Your task to perform on an android device: Search for vegetarian restaurants on Maps Image 0: 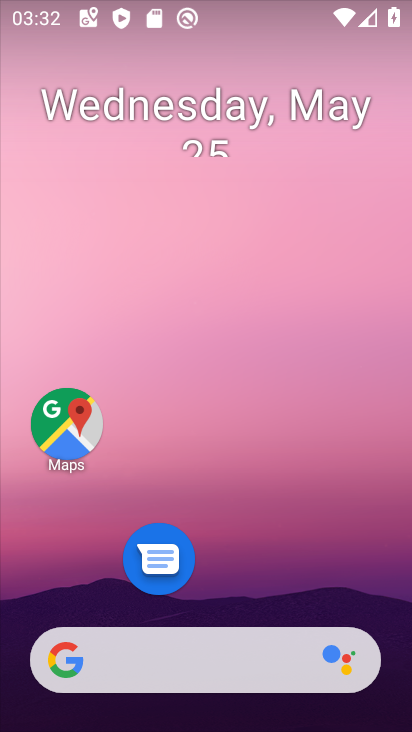
Step 0: drag from (228, 602) to (266, 112)
Your task to perform on an android device: Search for vegetarian restaurants on Maps Image 1: 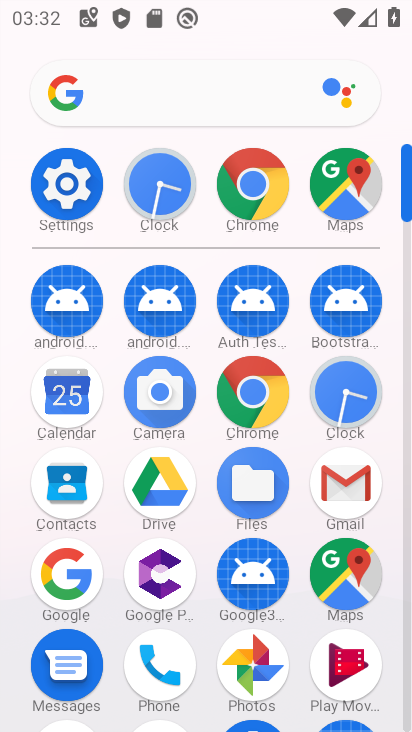
Step 1: click (346, 568)
Your task to perform on an android device: Search for vegetarian restaurants on Maps Image 2: 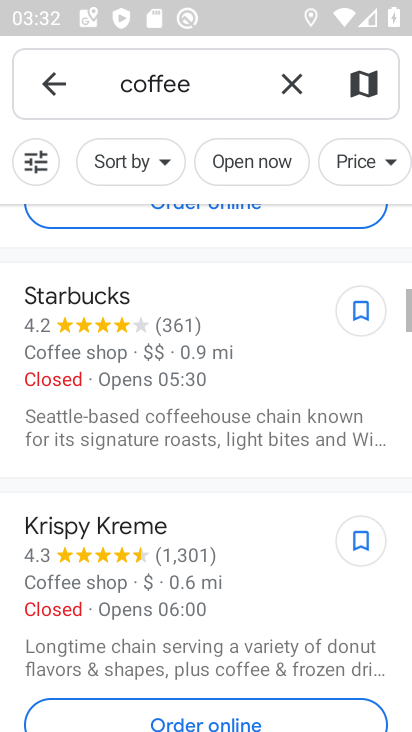
Step 2: click (289, 84)
Your task to perform on an android device: Search for vegetarian restaurants on Maps Image 3: 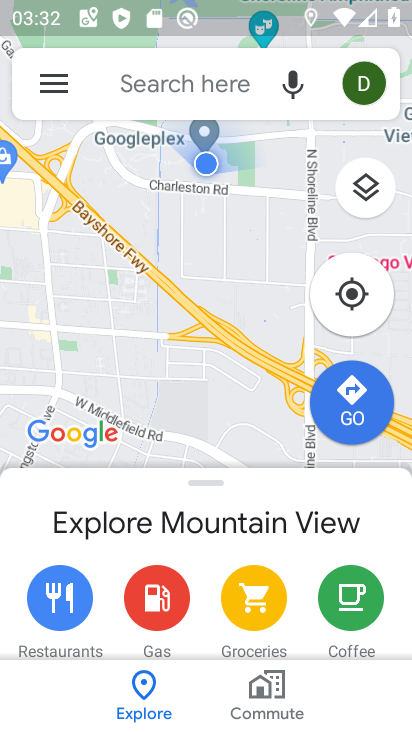
Step 3: click (133, 77)
Your task to perform on an android device: Search for vegetarian restaurants on Maps Image 4: 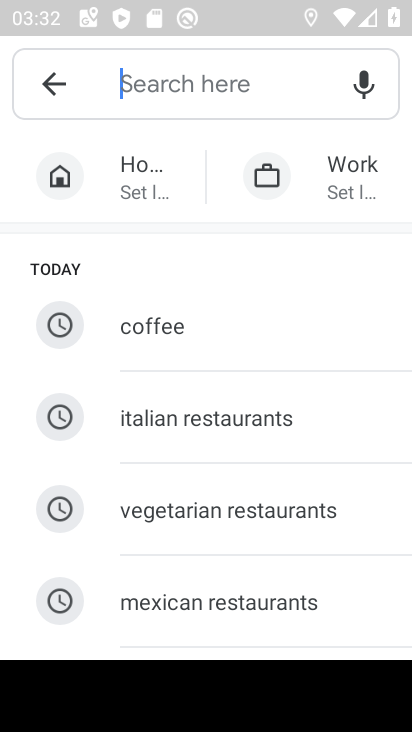
Step 4: type "veget"
Your task to perform on an android device: Search for vegetarian restaurants on Maps Image 5: 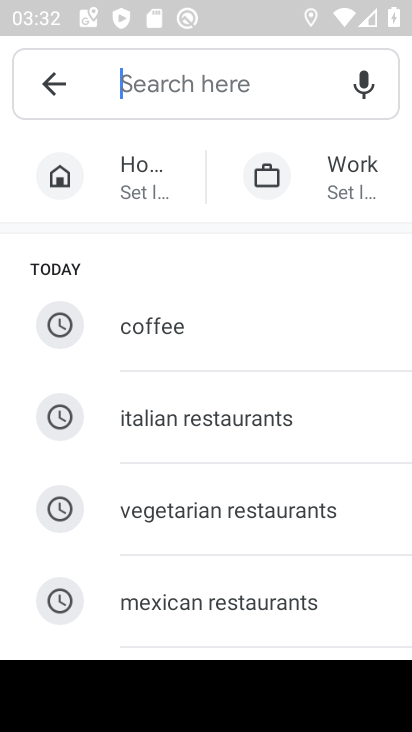
Step 5: click (217, 525)
Your task to perform on an android device: Search for vegetarian restaurants on Maps Image 6: 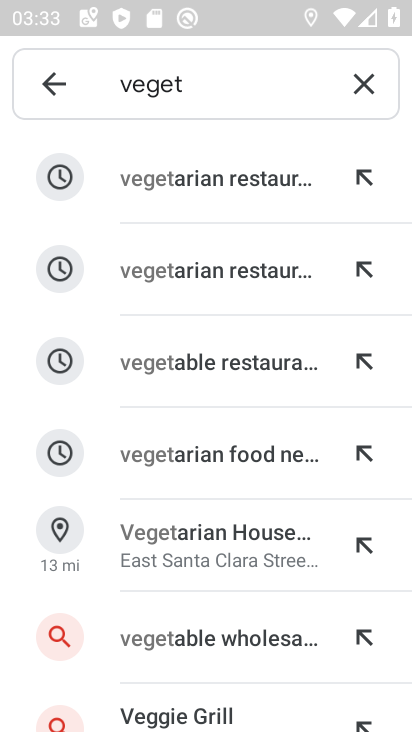
Step 6: click (192, 196)
Your task to perform on an android device: Search for vegetarian restaurants on Maps Image 7: 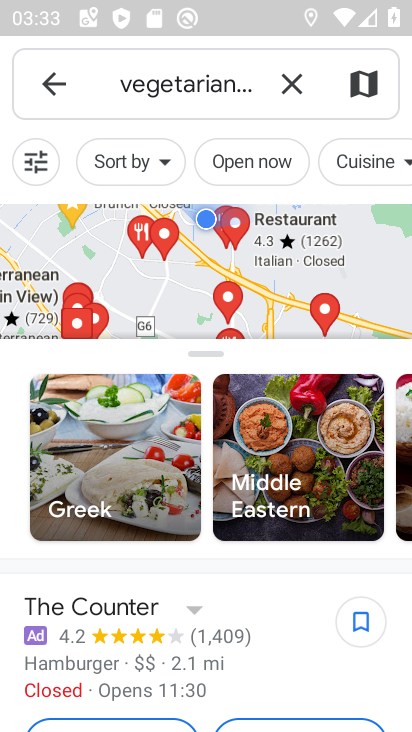
Step 7: task complete